Your task to perform on an android device: Find coffee shops on Maps Image 0: 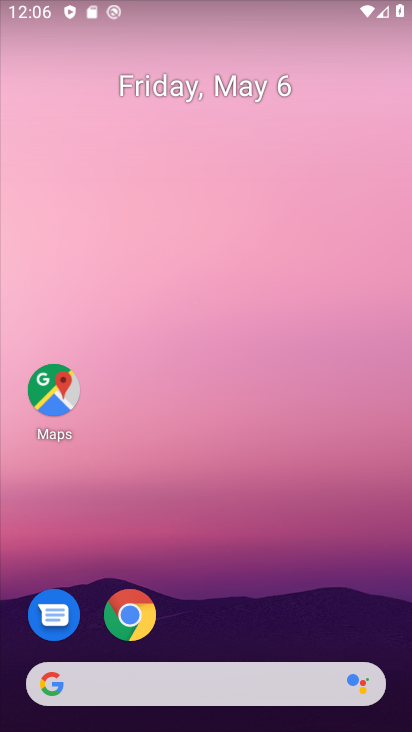
Step 0: drag from (205, 429) to (263, 6)
Your task to perform on an android device: Find coffee shops on Maps Image 1: 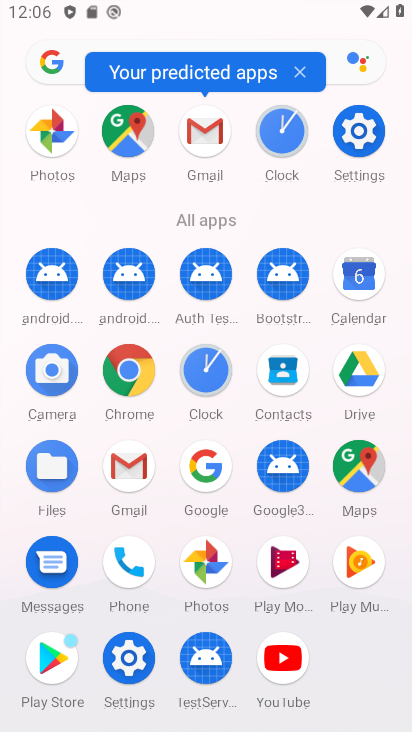
Step 1: click (356, 474)
Your task to perform on an android device: Find coffee shops on Maps Image 2: 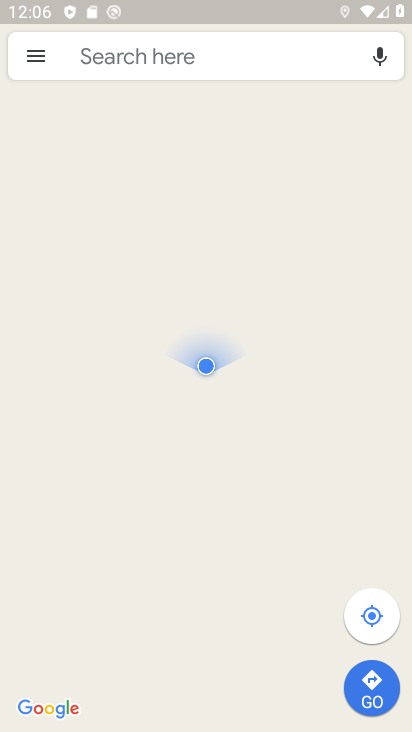
Step 2: click (194, 58)
Your task to perform on an android device: Find coffee shops on Maps Image 3: 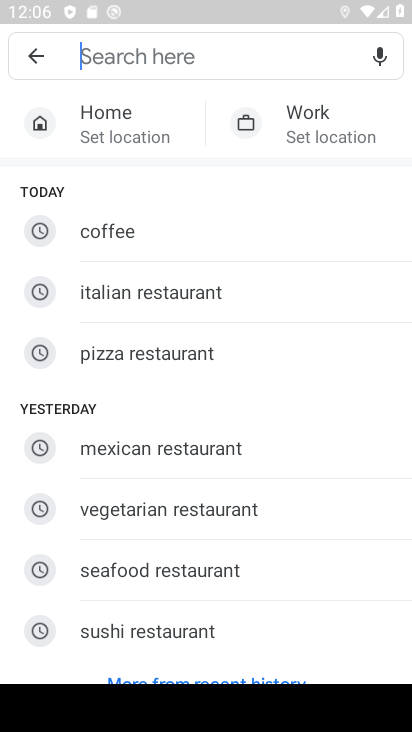
Step 3: type "coffee shops"
Your task to perform on an android device: Find coffee shops on Maps Image 4: 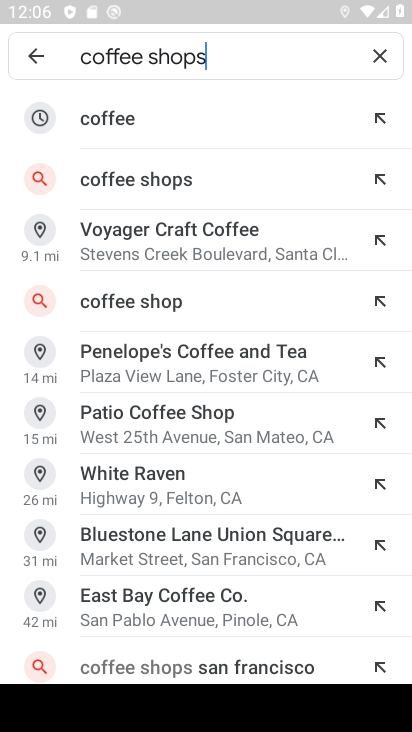
Step 4: click (227, 192)
Your task to perform on an android device: Find coffee shops on Maps Image 5: 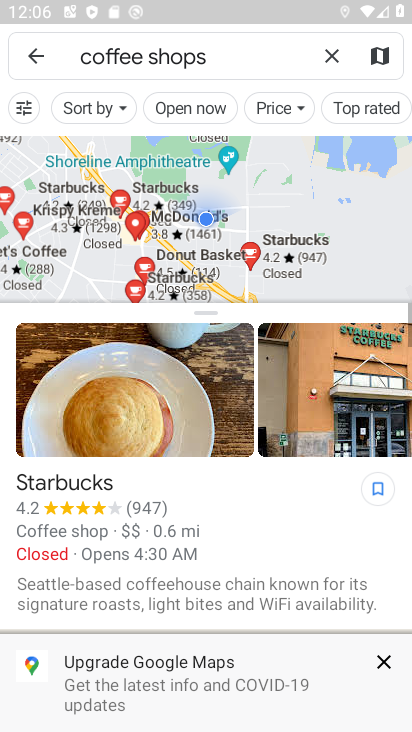
Step 5: task complete